Your task to perform on an android device: turn on javascript in the chrome app Image 0: 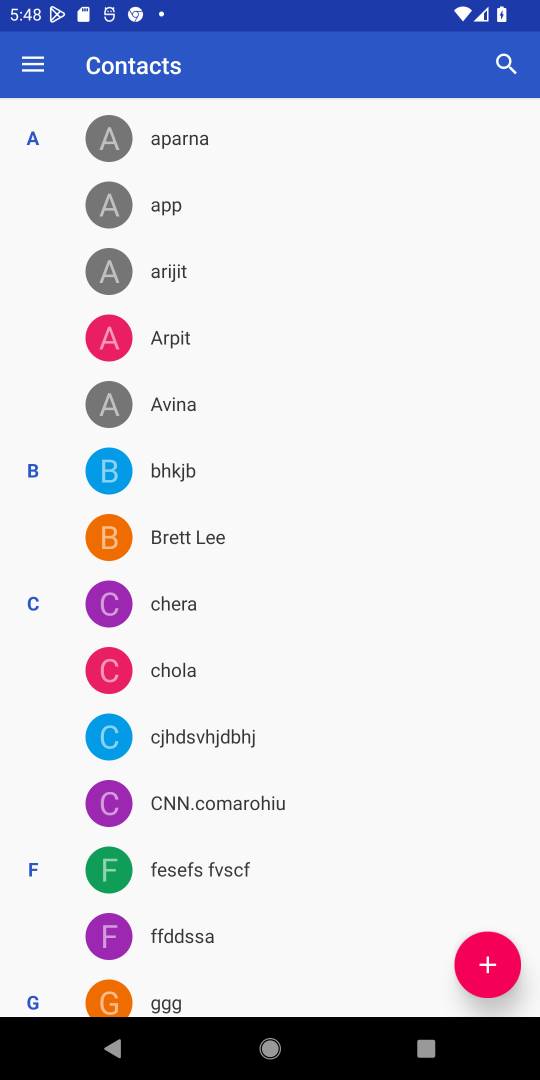
Step 0: press home button
Your task to perform on an android device: turn on javascript in the chrome app Image 1: 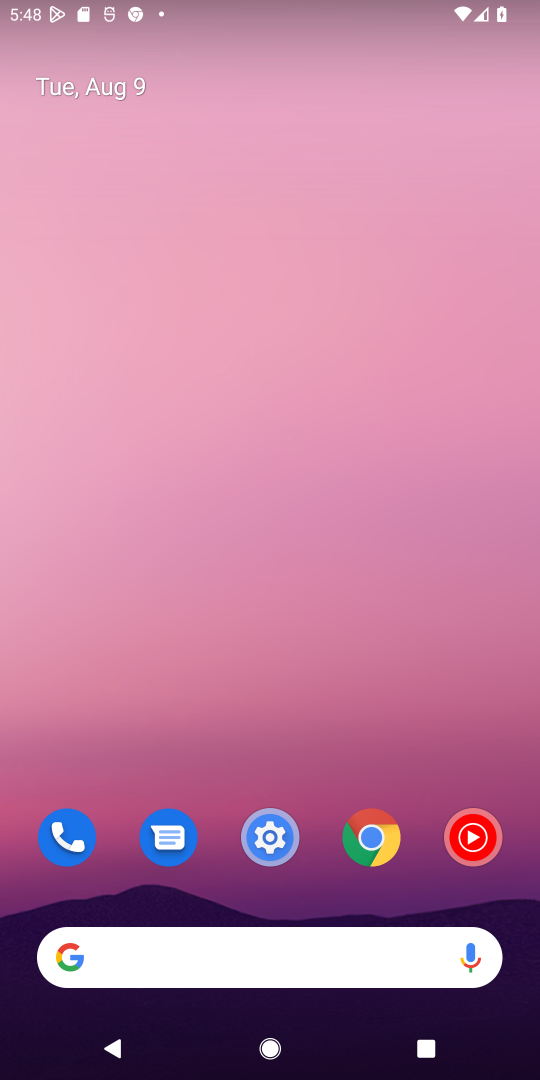
Step 1: drag from (262, 879) to (367, 332)
Your task to perform on an android device: turn on javascript in the chrome app Image 2: 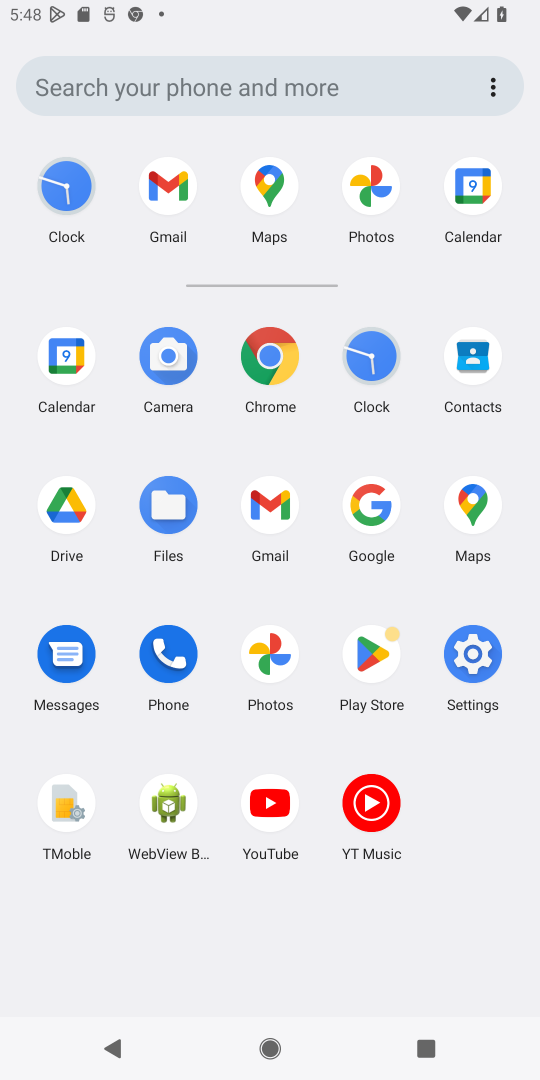
Step 2: click (282, 339)
Your task to perform on an android device: turn on javascript in the chrome app Image 3: 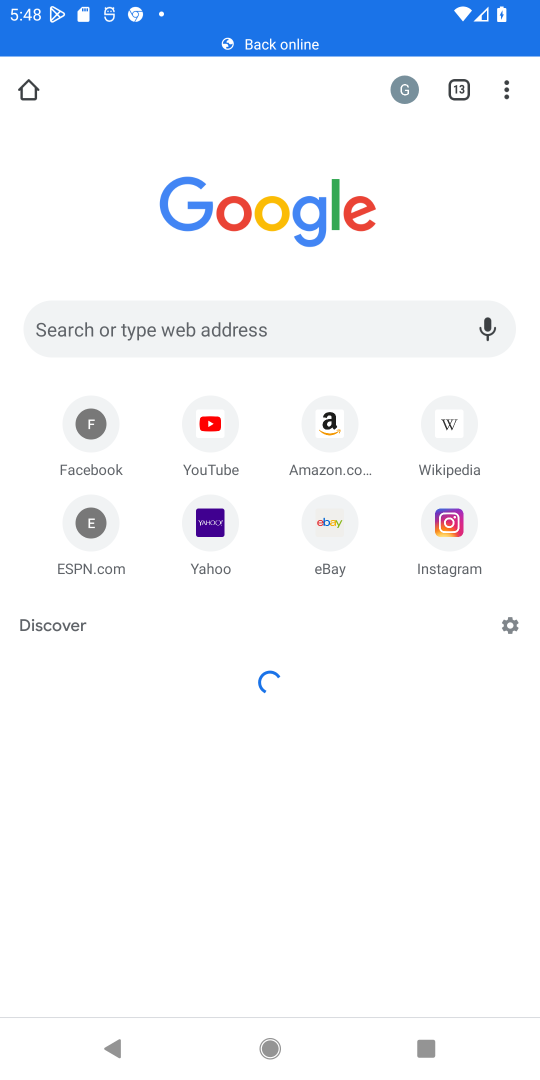
Step 3: click (507, 82)
Your task to perform on an android device: turn on javascript in the chrome app Image 4: 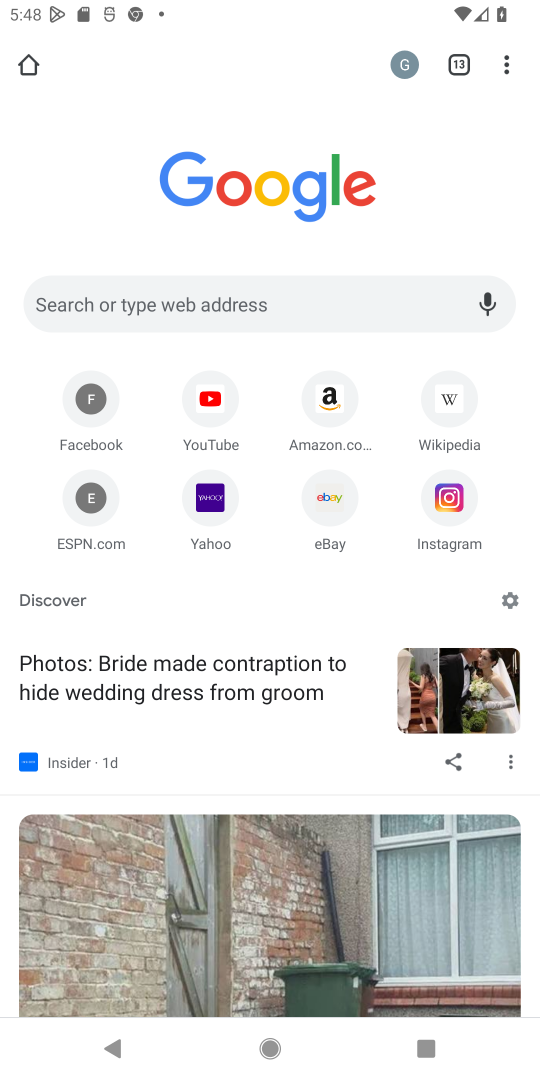
Step 4: click (506, 50)
Your task to perform on an android device: turn on javascript in the chrome app Image 5: 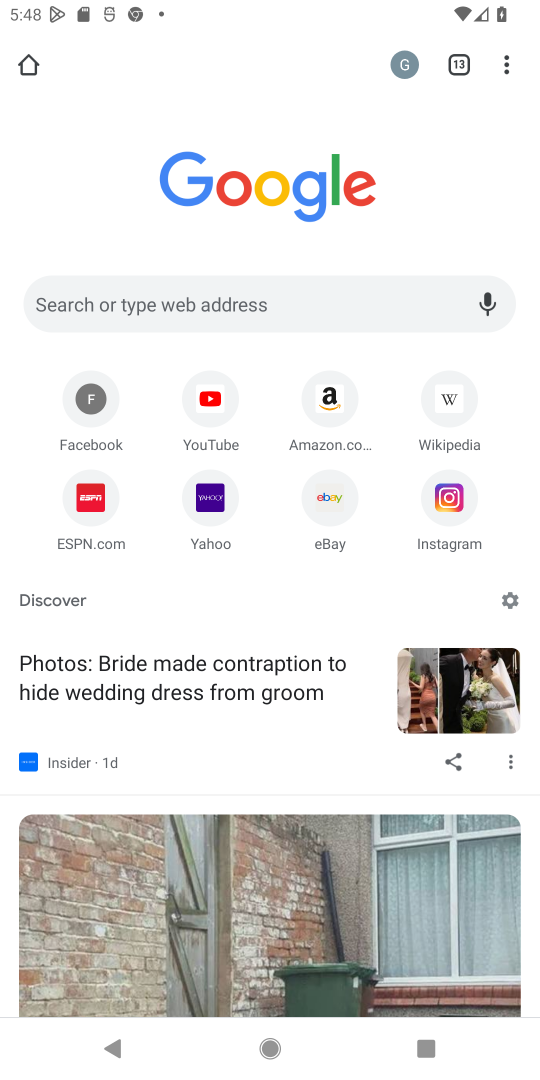
Step 5: click (504, 52)
Your task to perform on an android device: turn on javascript in the chrome app Image 6: 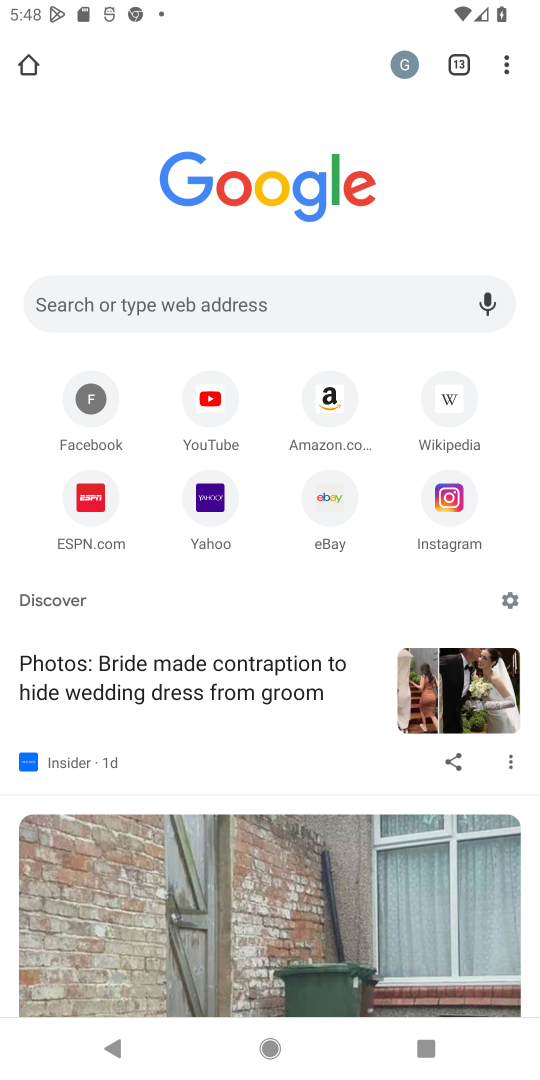
Step 6: click (504, 52)
Your task to perform on an android device: turn on javascript in the chrome app Image 7: 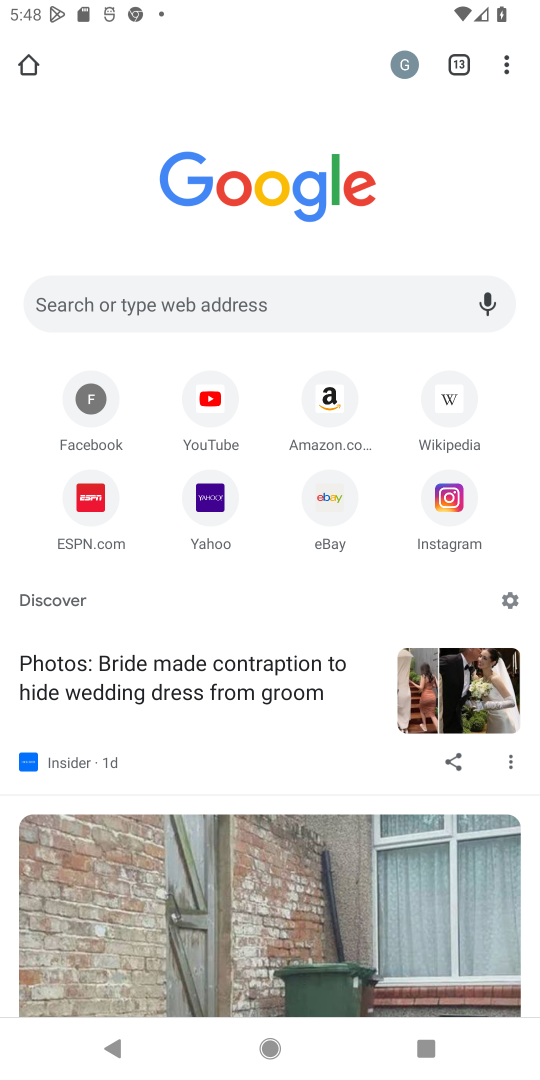
Step 7: click (504, 73)
Your task to perform on an android device: turn on javascript in the chrome app Image 8: 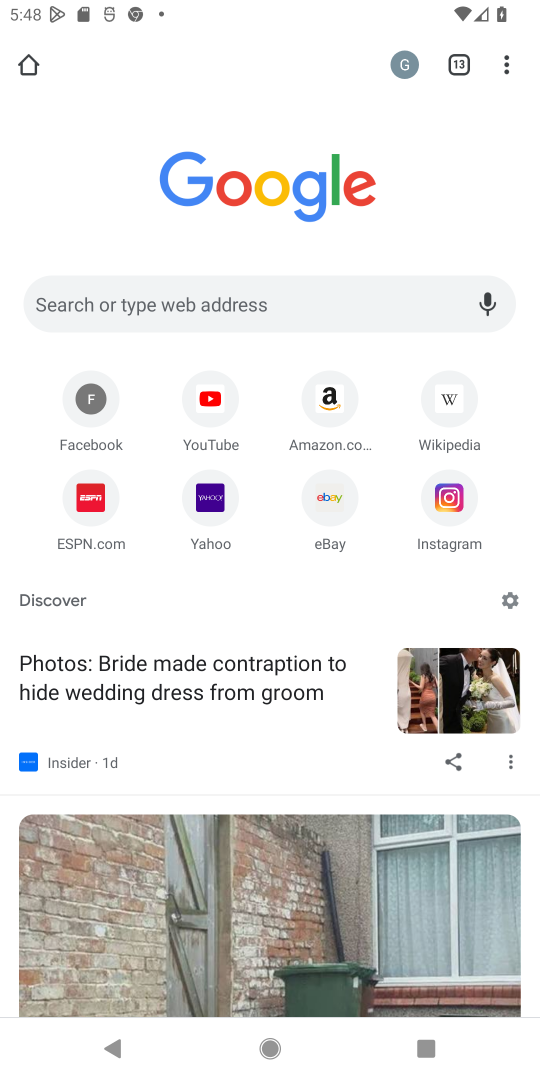
Step 8: click (504, 73)
Your task to perform on an android device: turn on javascript in the chrome app Image 9: 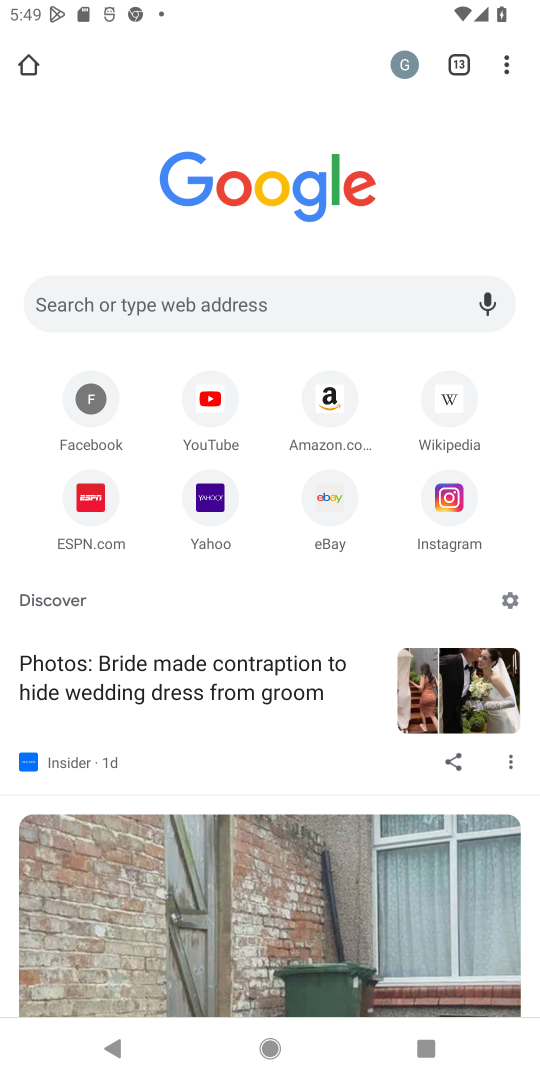
Step 9: click (506, 62)
Your task to perform on an android device: turn on javascript in the chrome app Image 10: 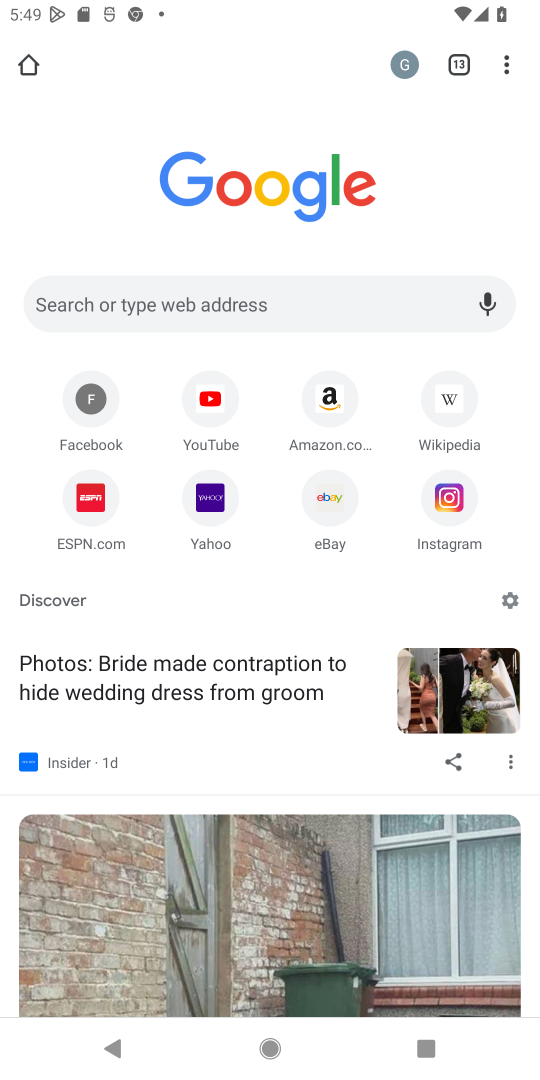
Step 10: click (506, 62)
Your task to perform on an android device: turn on javascript in the chrome app Image 11: 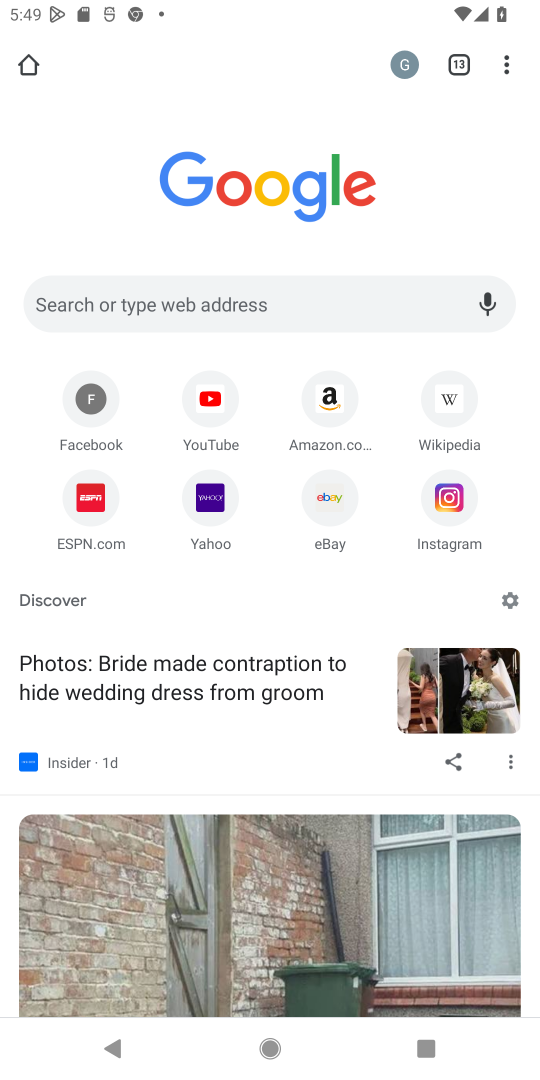
Step 11: click (506, 62)
Your task to perform on an android device: turn on javascript in the chrome app Image 12: 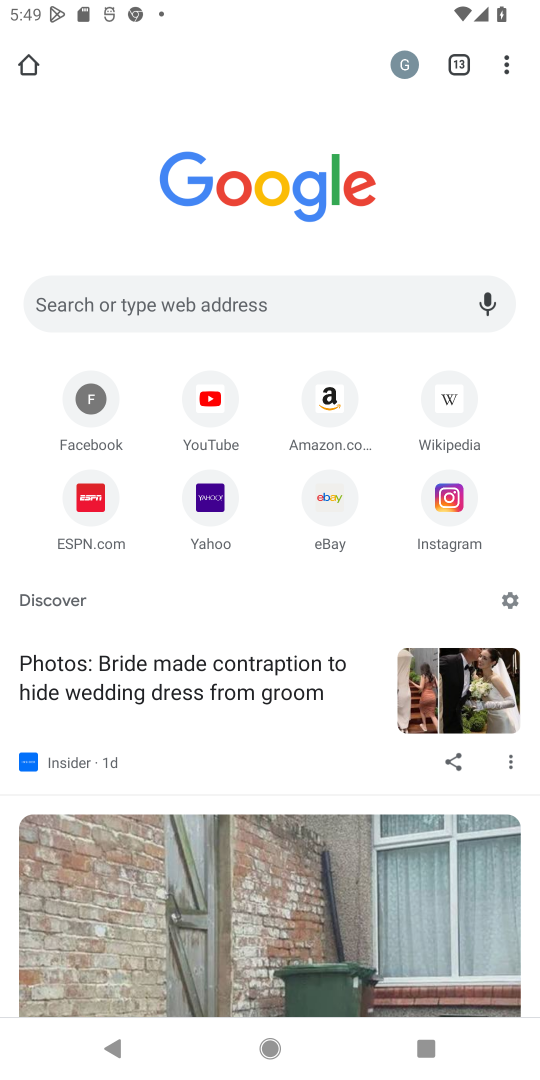
Step 12: click (506, 62)
Your task to perform on an android device: turn on javascript in the chrome app Image 13: 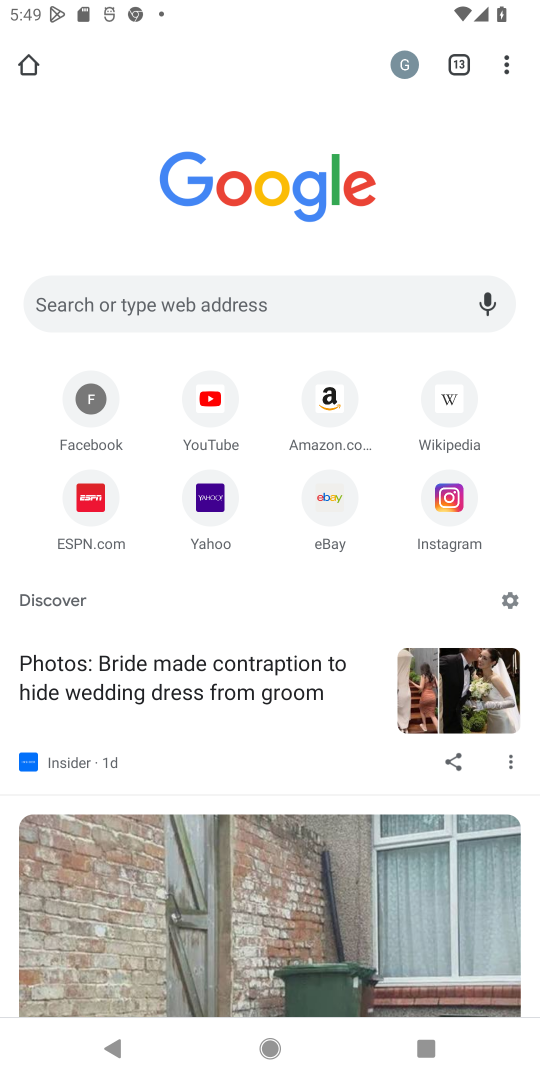
Step 13: click (506, 62)
Your task to perform on an android device: turn on javascript in the chrome app Image 14: 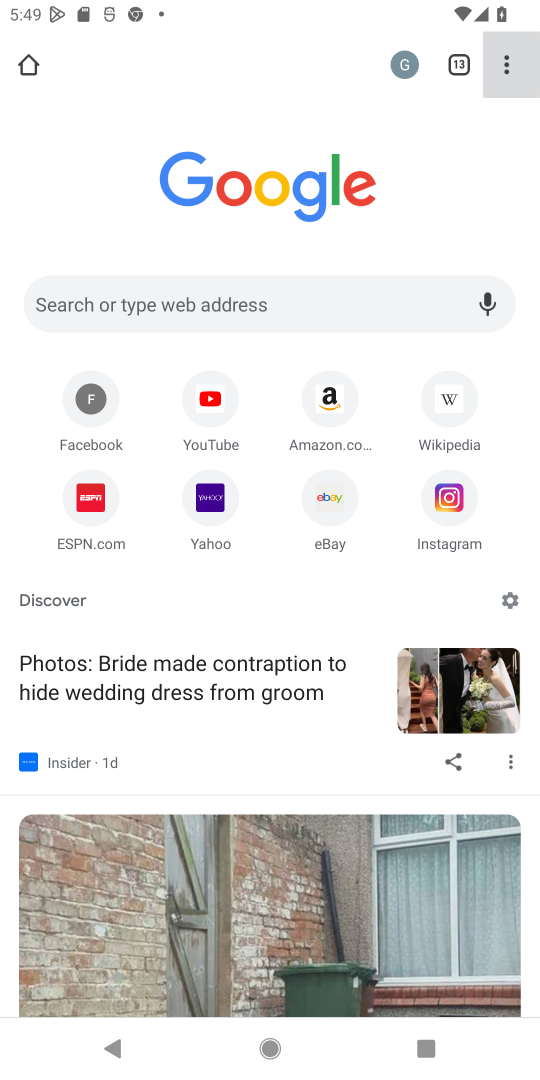
Step 14: click (506, 62)
Your task to perform on an android device: turn on javascript in the chrome app Image 15: 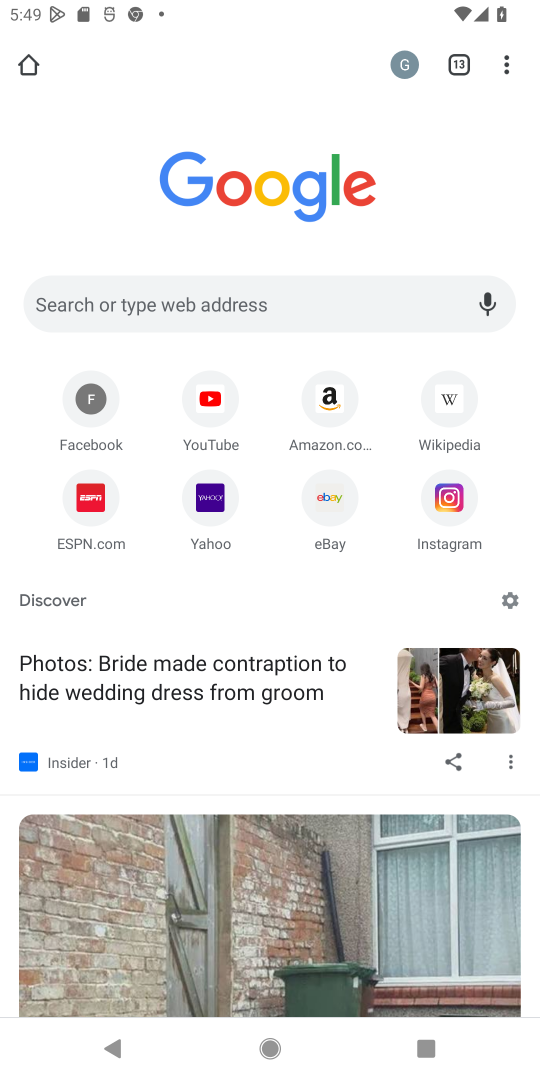
Step 15: click (503, 64)
Your task to perform on an android device: turn on javascript in the chrome app Image 16: 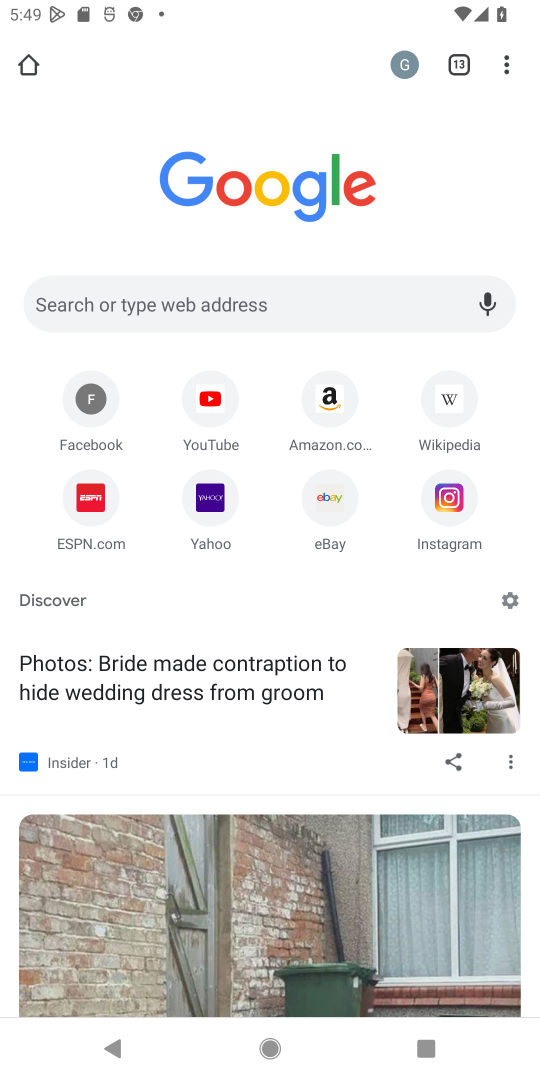
Step 16: click (503, 64)
Your task to perform on an android device: turn on javascript in the chrome app Image 17: 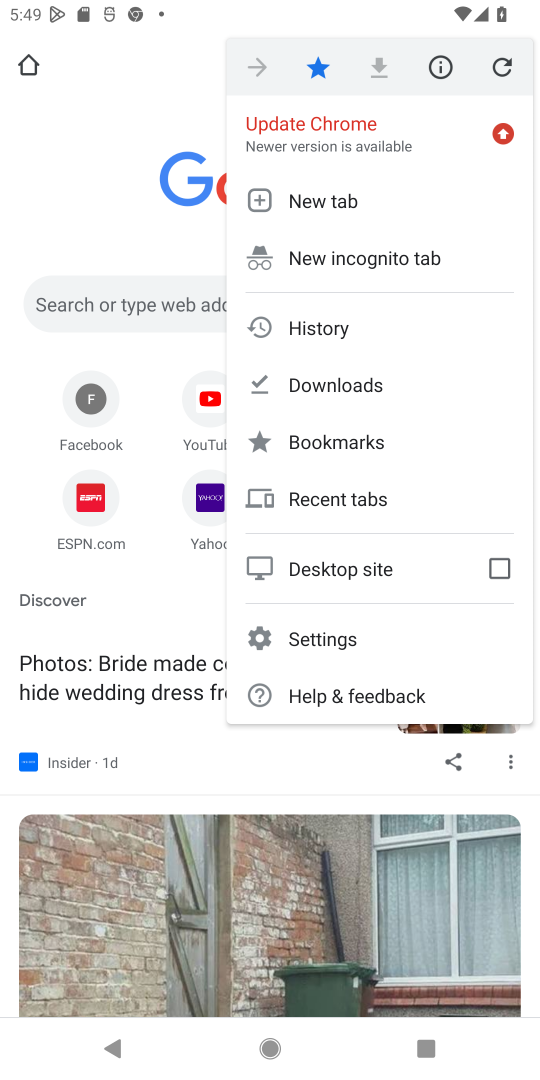
Step 17: click (356, 638)
Your task to perform on an android device: turn on javascript in the chrome app Image 18: 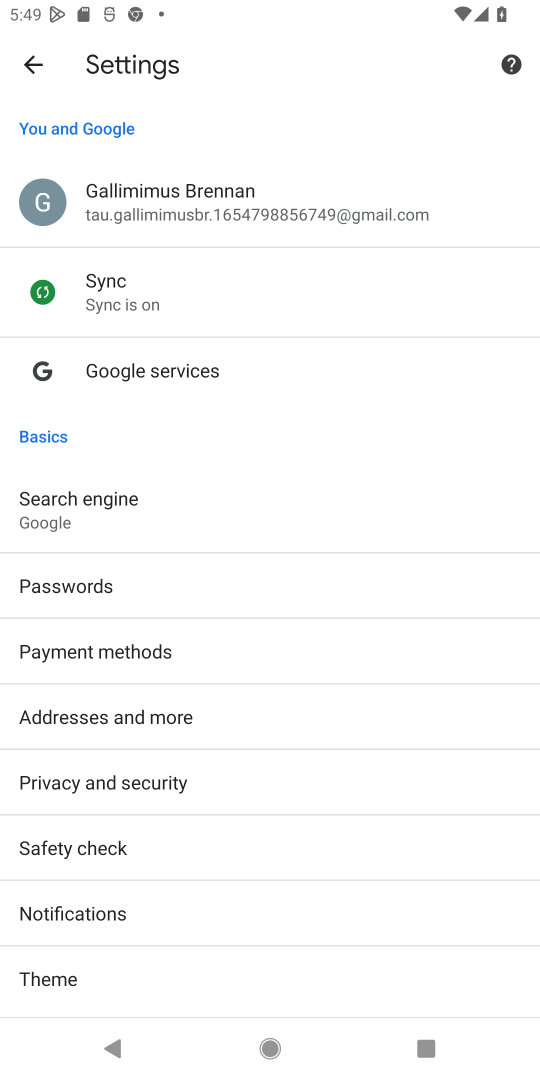
Step 18: drag from (152, 897) to (294, 206)
Your task to perform on an android device: turn on javascript in the chrome app Image 19: 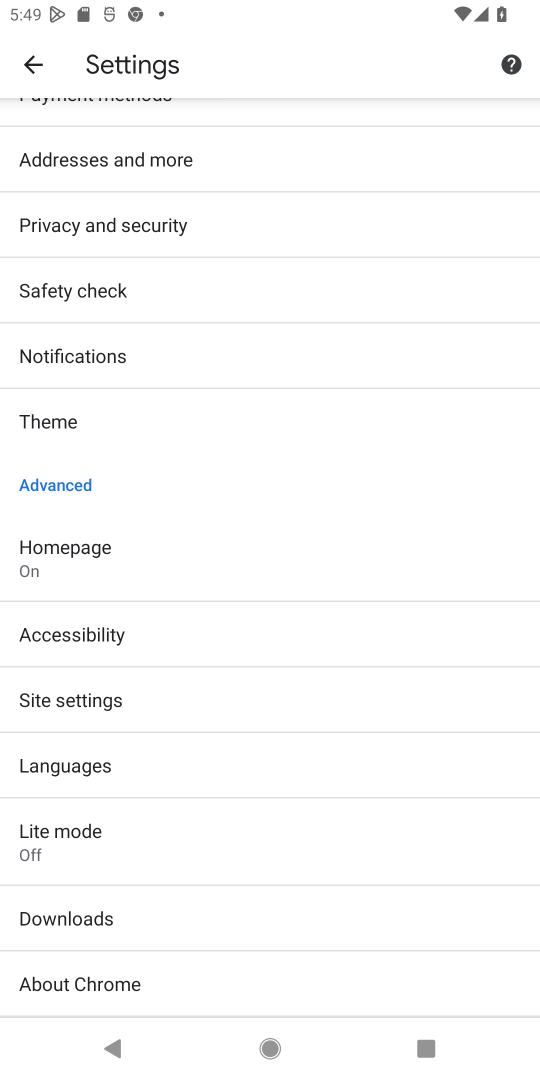
Step 19: click (123, 699)
Your task to perform on an android device: turn on javascript in the chrome app Image 20: 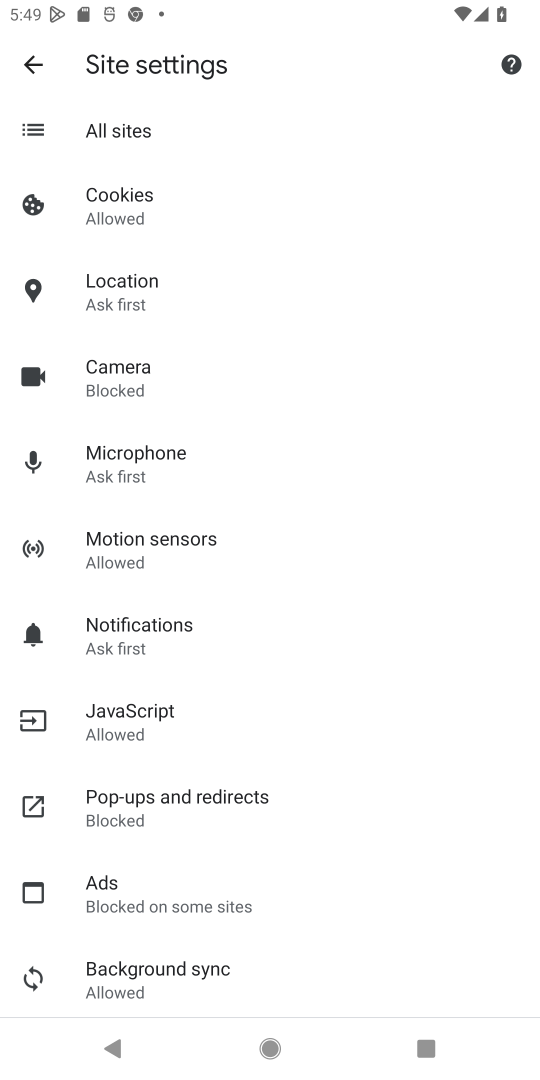
Step 20: click (188, 704)
Your task to perform on an android device: turn on javascript in the chrome app Image 21: 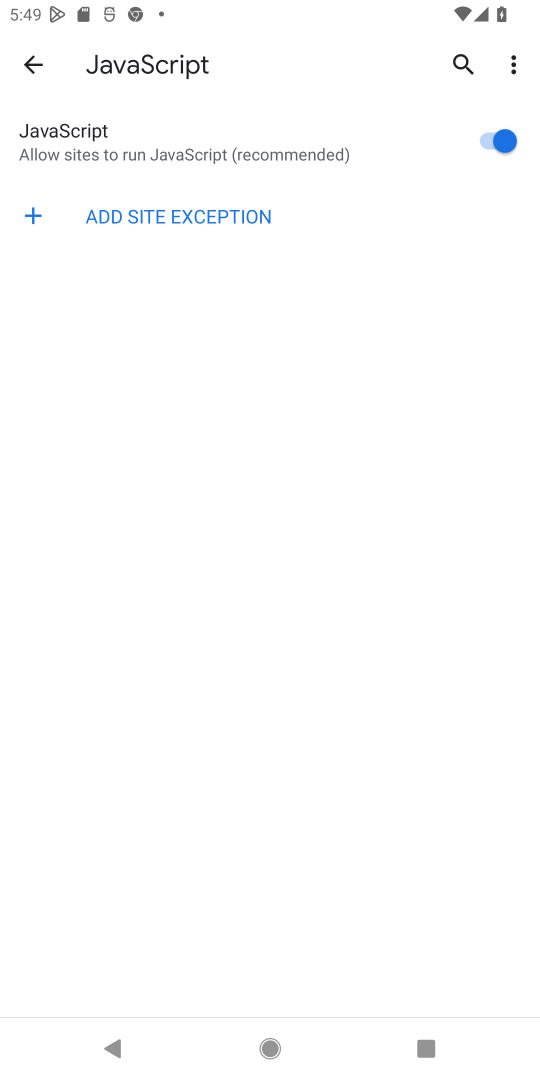
Step 21: click (485, 138)
Your task to perform on an android device: turn on javascript in the chrome app Image 22: 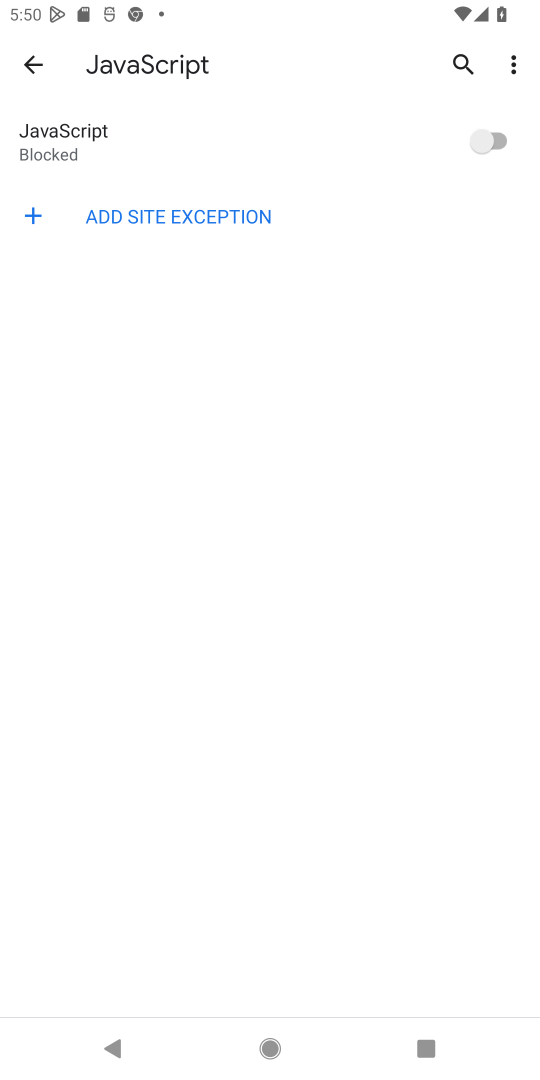
Step 22: click (481, 136)
Your task to perform on an android device: turn on javascript in the chrome app Image 23: 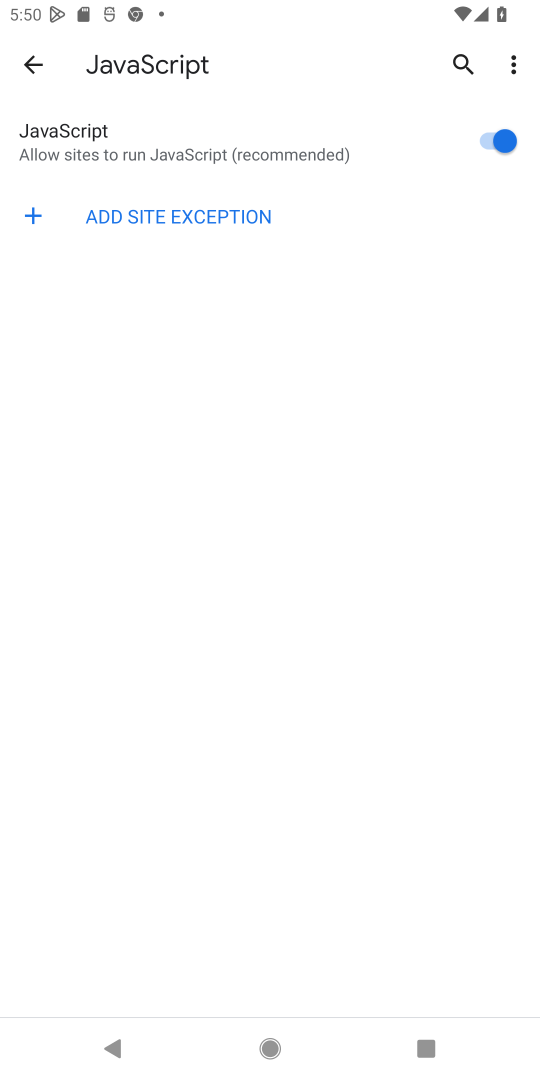
Step 23: task complete